Your task to perform on an android device: allow notifications from all sites in the chrome app Image 0: 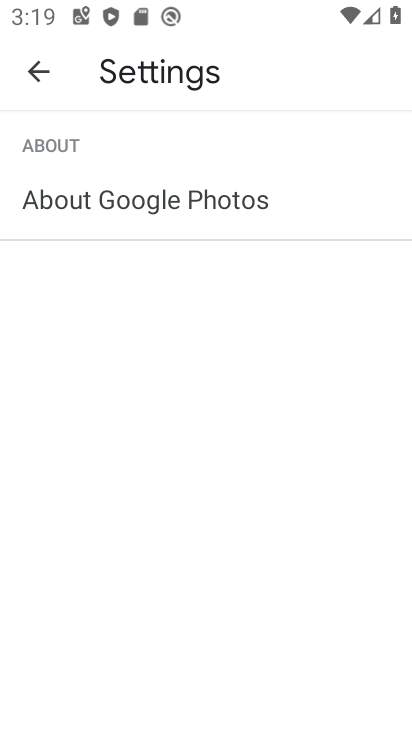
Step 0: drag from (81, 506) to (133, 126)
Your task to perform on an android device: allow notifications from all sites in the chrome app Image 1: 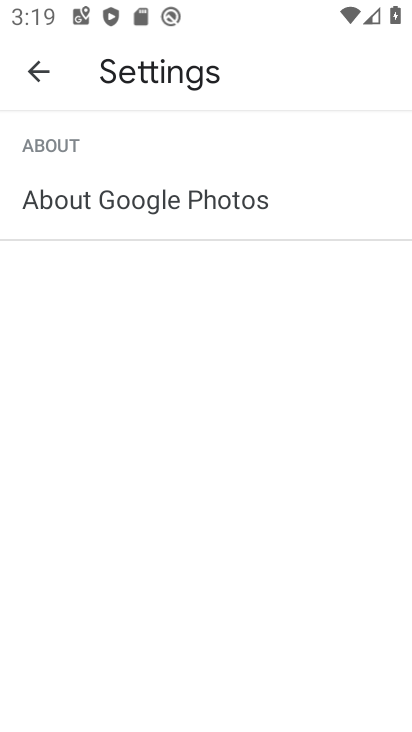
Step 1: drag from (206, 237) to (201, 191)
Your task to perform on an android device: allow notifications from all sites in the chrome app Image 2: 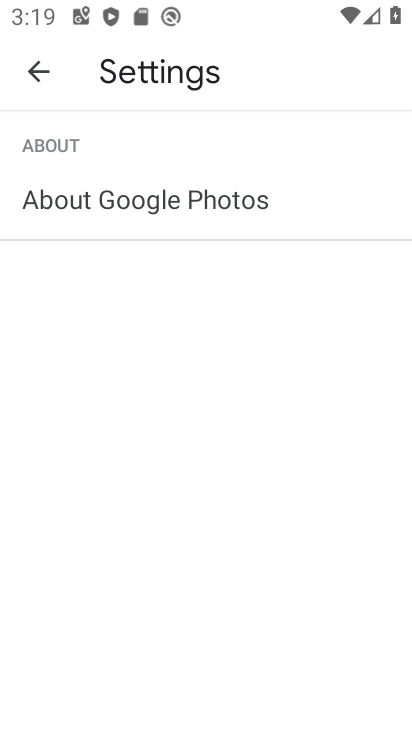
Step 2: drag from (138, 451) to (174, 205)
Your task to perform on an android device: allow notifications from all sites in the chrome app Image 3: 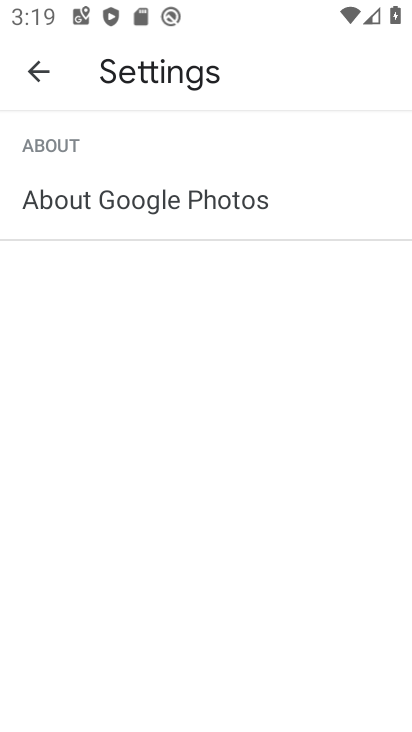
Step 3: drag from (200, 486) to (219, 255)
Your task to perform on an android device: allow notifications from all sites in the chrome app Image 4: 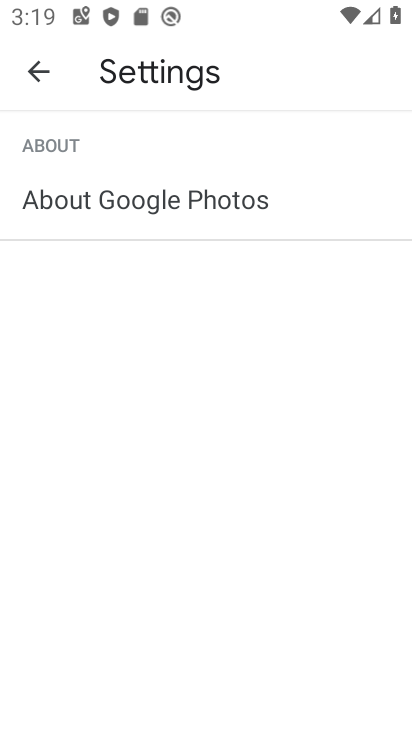
Step 4: click (252, 558)
Your task to perform on an android device: allow notifications from all sites in the chrome app Image 5: 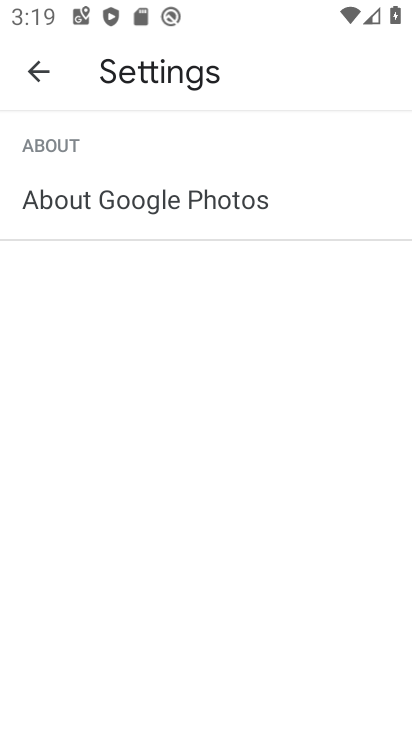
Step 5: click (28, 70)
Your task to perform on an android device: allow notifications from all sites in the chrome app Image 6: 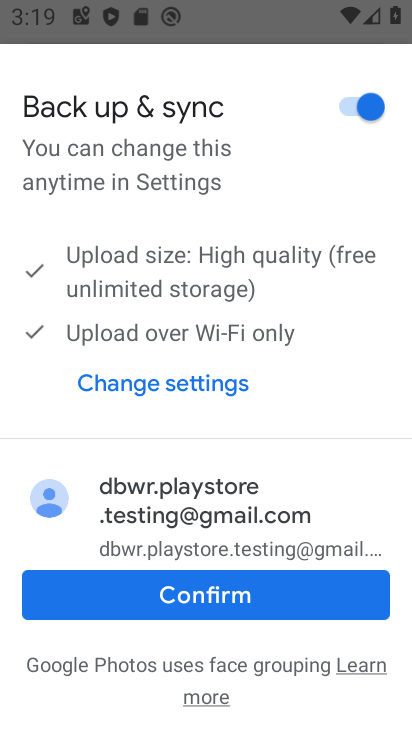
Step 6: click (184, 604)
Your task to perform on an android device: allow notifications from all sites in the chrome app Image 7: 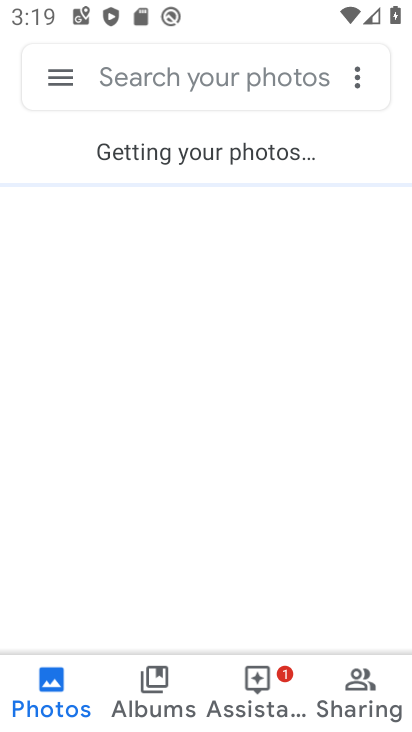
Step 7: press home button
Your task to perform on an android device: allow notifications from all sites in the chrome app Image 8: 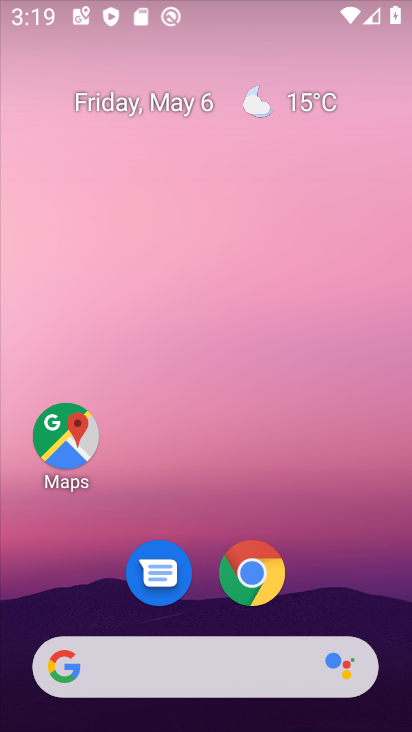
Step 8: drag from (156, 651) to (210, 223)
Your task to perform on an android device: allow notifications from all sites in the chrome app Image 9: 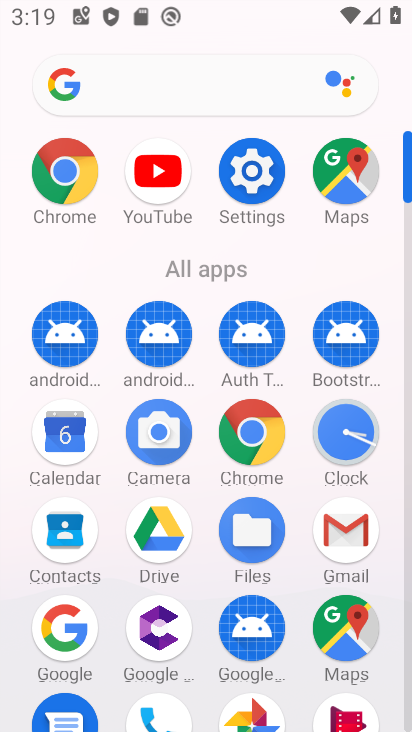
Step 9: click (252, 430)
Your task to perform on an android device: allow notifications from all sites in the chrome app Image 10: 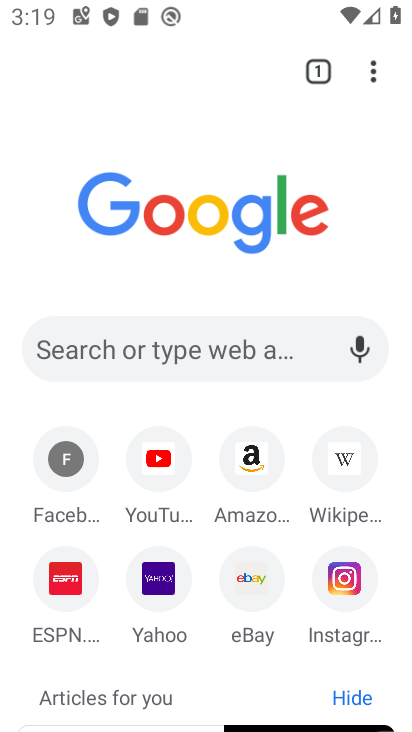
Step 10: drag from (202, 640) to (231, 245)
Your task to perform on an android device: allow notifications from all sites in the chrome app Image 11: 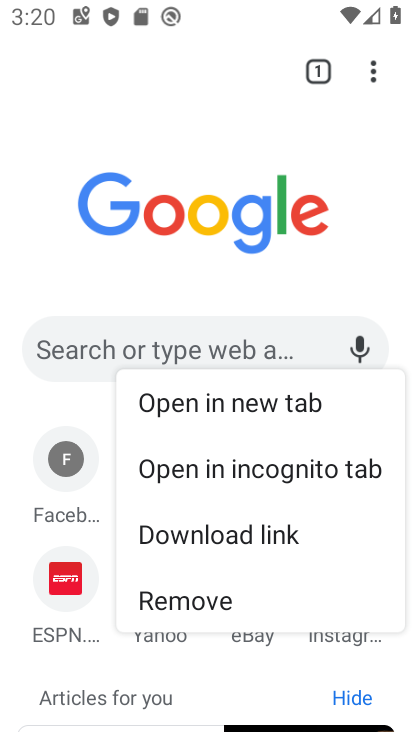
Step 11: click (211, 191)
Your task to perform on an android device: allow notifications from all sites in the chrome app Image 12: 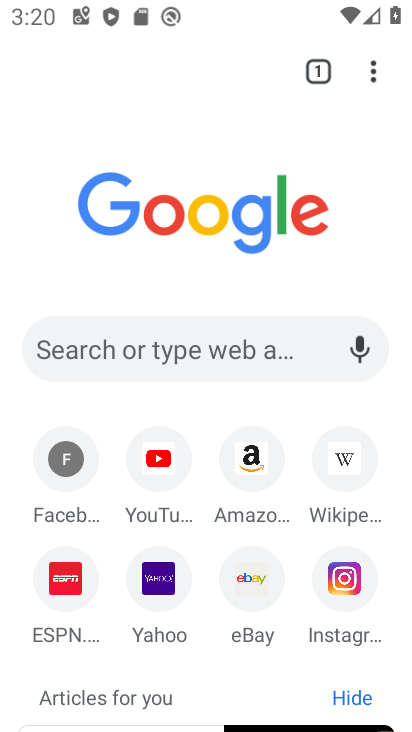
Step 12: drag from (198, 290) to (214, 82)
Your task to perform on an android device: allow notifications from all sites in the chrome app Image 13: 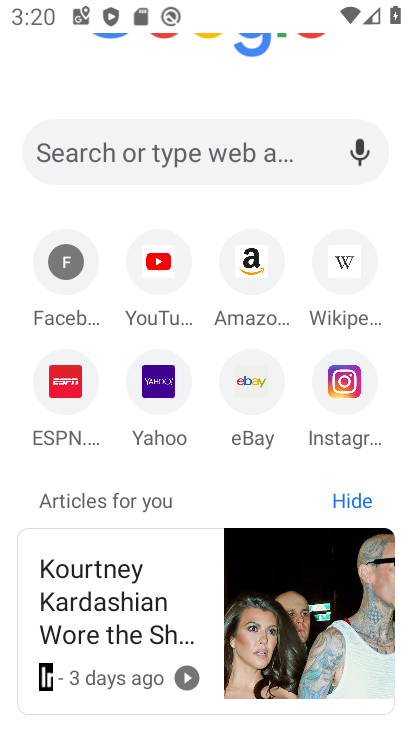
Step 13: drag from (188, 473) to (210, 228)
Your task to perform on an android device: allow notifications from all sites in the chrome app Image 14: 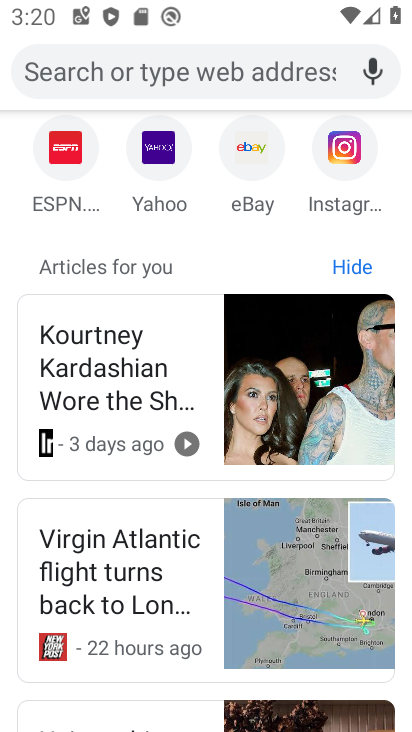
Step 14: drag from (189, 658) to (193, 373)
Your task to perform on an android device: allow notifications from all sites in the chrome app Image 15: 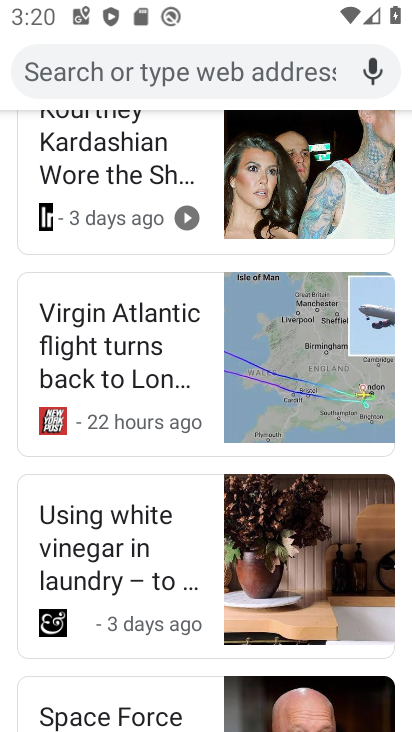
Step 15: drag from (181, 651) to (182, 384)
Your task to perform on an android device: allow notifications from all sites in the chrome app Image 16: 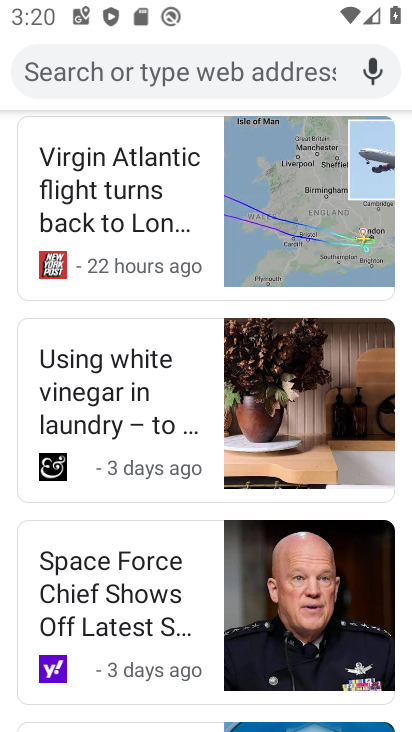
Step 16: drag from (205, 680) to (208, 405)
Your task to perform on an android device: allow notifications from all sites in the chrome app Image 17: 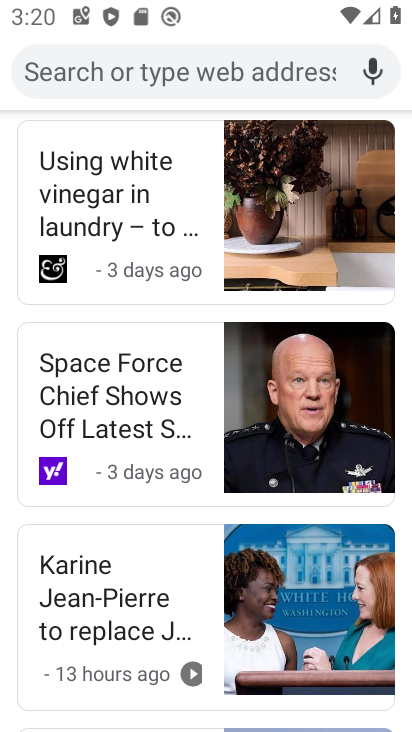
Step 17: drag from (201, 661) to (211, 424)
Your task to perform on an android device: allow notifications from all sites in the chrome app Image 18: 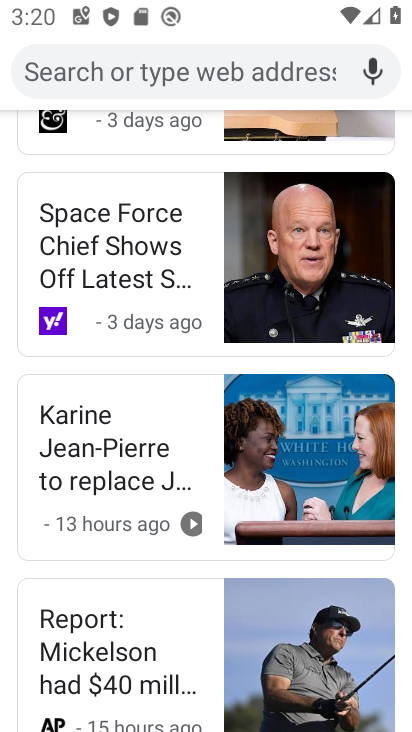
Step 18: drag from (181, 698) to (221, 430)
Your task to perform on an android device: allow notifications from all sites in the chrome app Image 19: 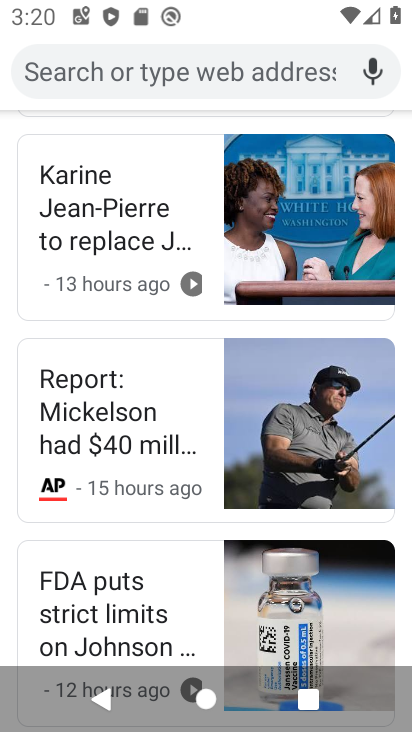
Step 19: drag from (222, 368) to (254, 728)
Your task to perform on an android device: allow notifications from all sites in the chrome app Image 20: 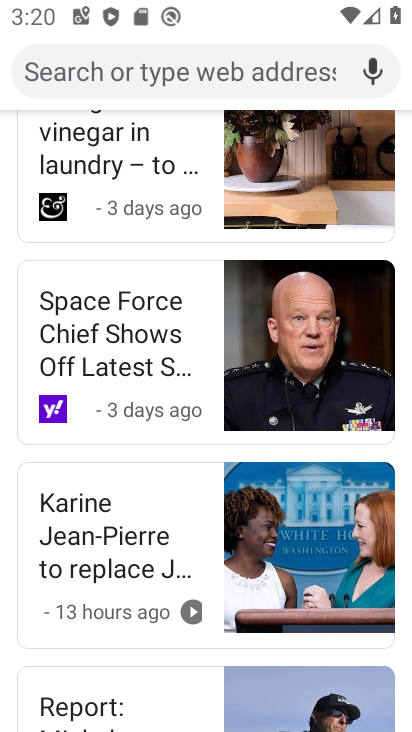
Step 20: drag from (208, 165) to (250, 727)
Your task to perform on an android device: allow notifications from all sites in the chrome app Image 21: 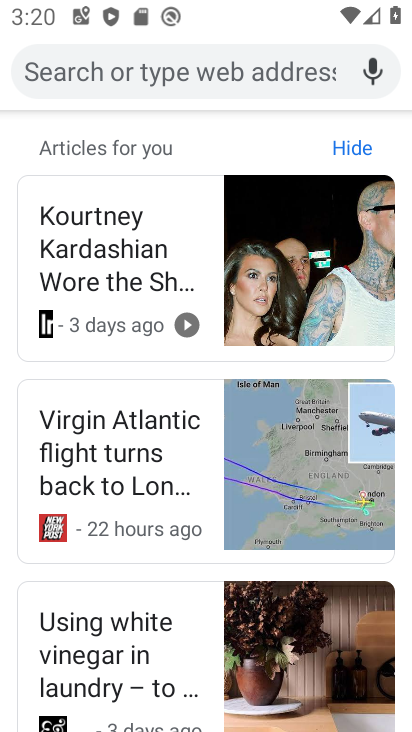
Step 21: drag from (203, 447) to (263, 720)
Your task to perform on an android device: allow notifications from all sites in the chrome app Image 22: 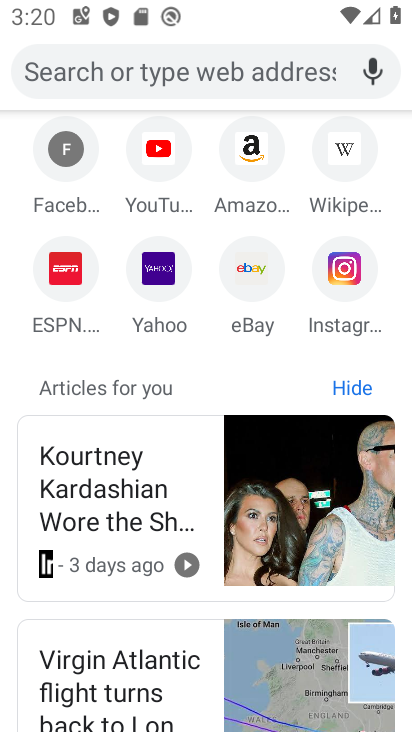
Step 22: drag from (209, 214) to (229, 615)
Your task to perform on an android device: allow notifications from all sites in the chrome app Image 23: 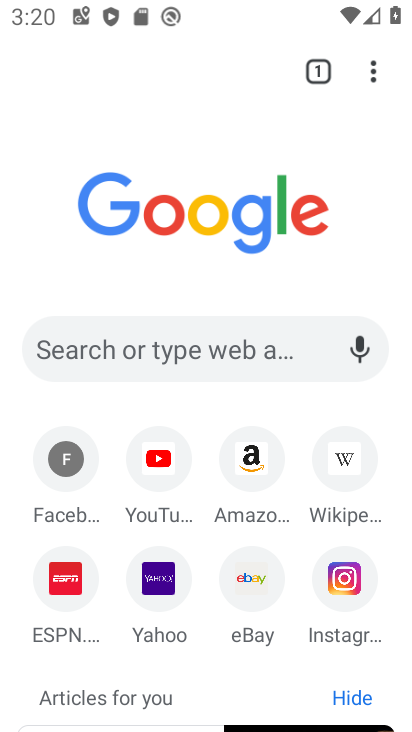
Step 23: click (372, 69)
Your task to perform on an android device: allow notifications from all sites in the chrome app Image 24: 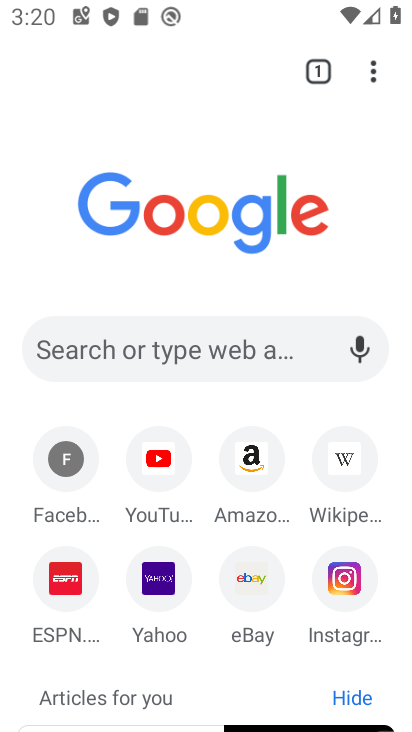
Step 24: click (372, 69)
Your task to perform on an android device: allow notifications from all sites in the chrome app Image 25: 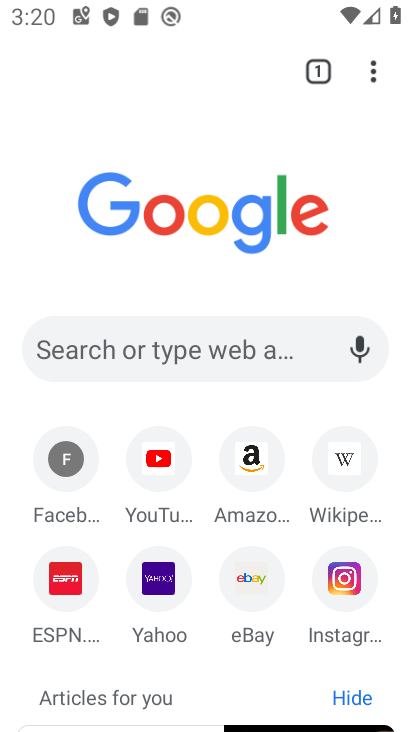
Step 25: drag from (379, 69) to (172, 608)
Your task to perform on an android device: allow notifications from all sites in the chrome app Image 26: 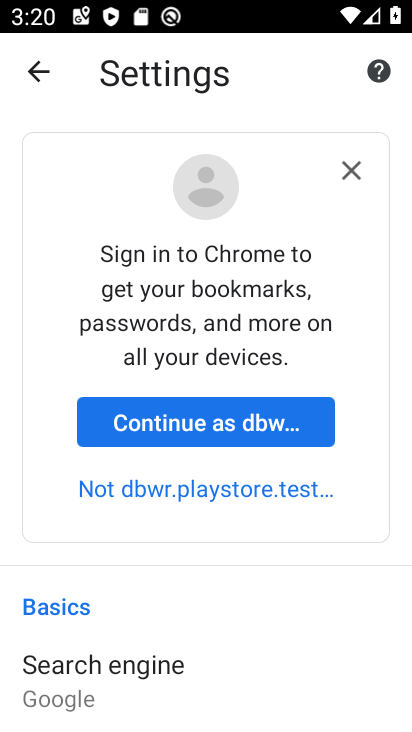
Step 26: drag from (184, 630) to (227, 85)
Your task to perform on an android device: allow notifications from all sites in the chrome app Image 27: 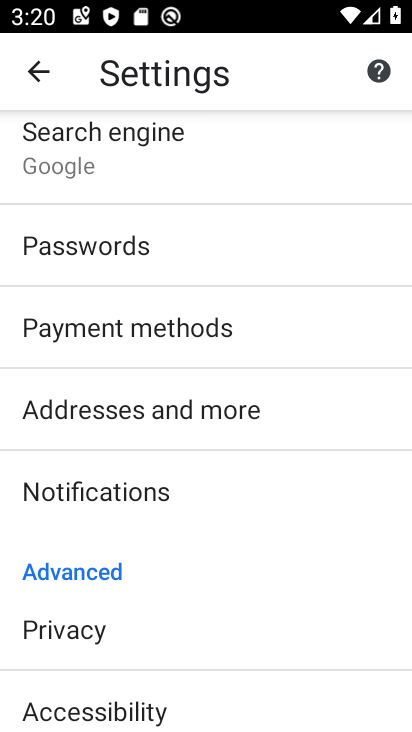
Step 27: drag from (162, 584) to (207, 255)
Your task to perform on an android device: allow notifications from all sites in the chrome app Image 28: 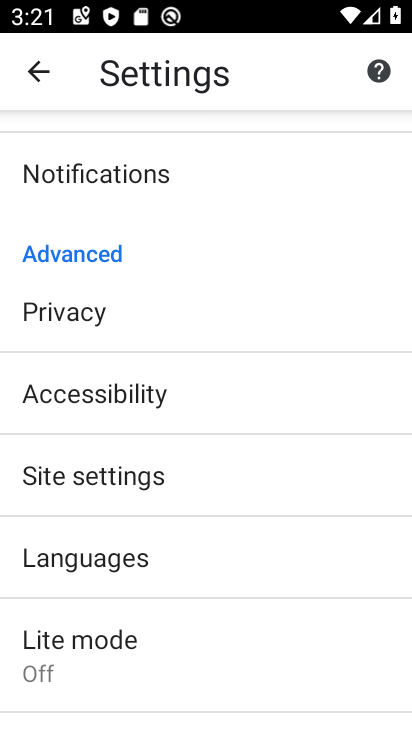
Step 28: click (147, 476)
Your task to perform on an android device: allow notifications from all sites in the chrome app Image 29: 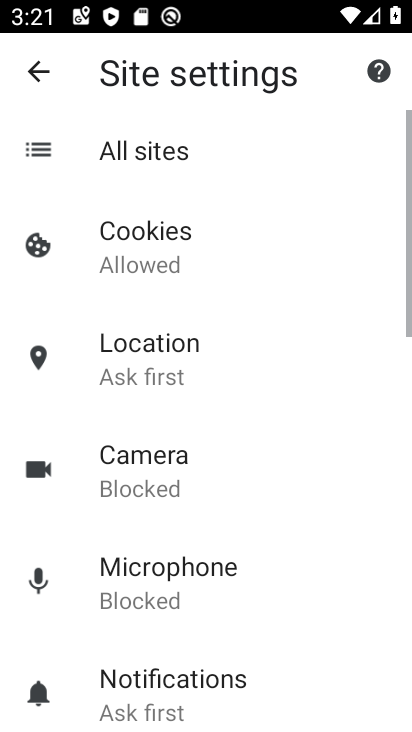
Step 29: drag from (159, 639) to (184, 344)
Your task to perform on an android device: allow notifications from all sites in the chrome app Image 30: 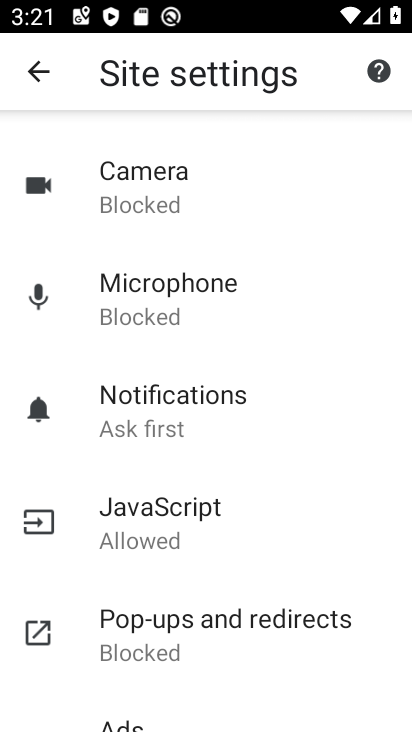
Step 30: drag from (181, 185) to (317, 729)
Your task to perform on an android device: allow notifications from all sites in the chrome app Image 31: 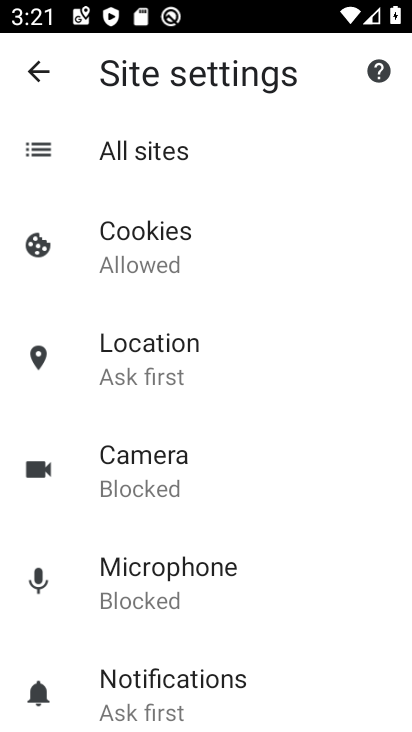
Step 31: click (203, 153)
Your task to perform on an android device: allow notifications from all sites in the chrome app Image 32: 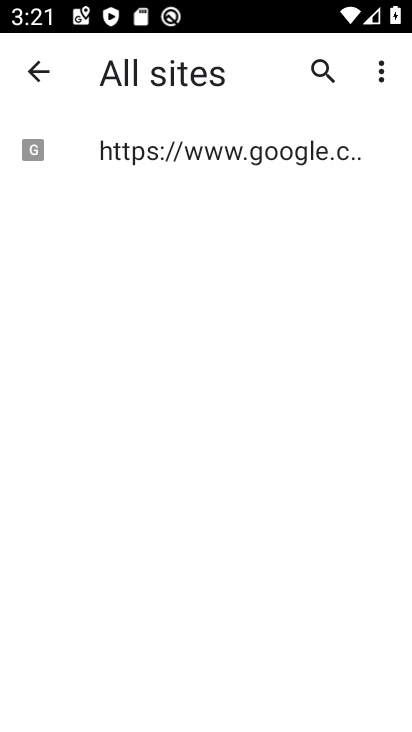
Step 32: drag from (250, 235) to (210, 664)
Your task to perform on an android device: allow notifications from all sites in the chrome app Image 33: 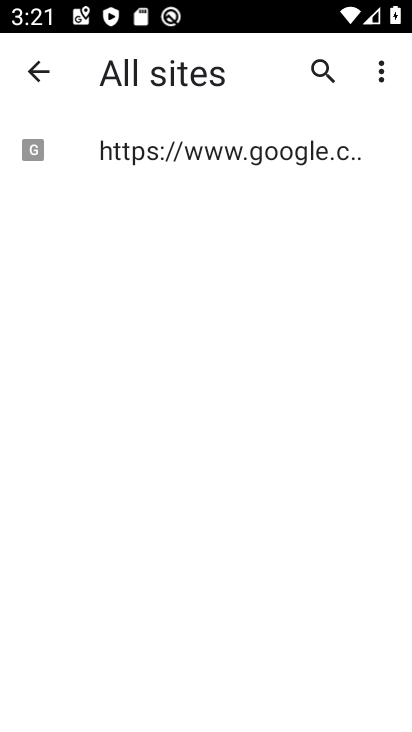
Step 33: drag from (180, 321) to (262, 622)
Your task to perform on an android device: allow notifications from all sites in the chrome app Image 34: 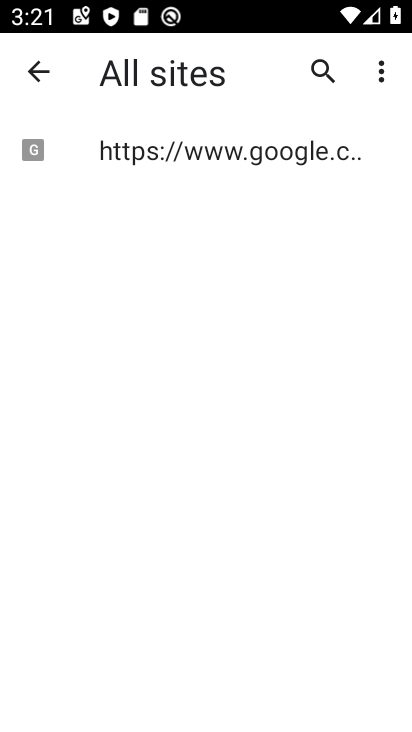
Step 34: drag from (212, 302) to (280, 589)
Your task to perform on an android device: allow notifications from all sites in the chrome app Image 35: 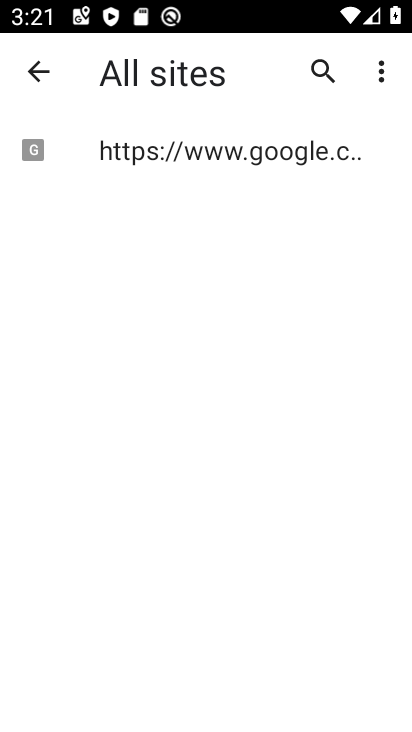
Step 35: click (267, 625)
Your task to perform on an android device: allow notifications from all sites in the chrome app Image 36: 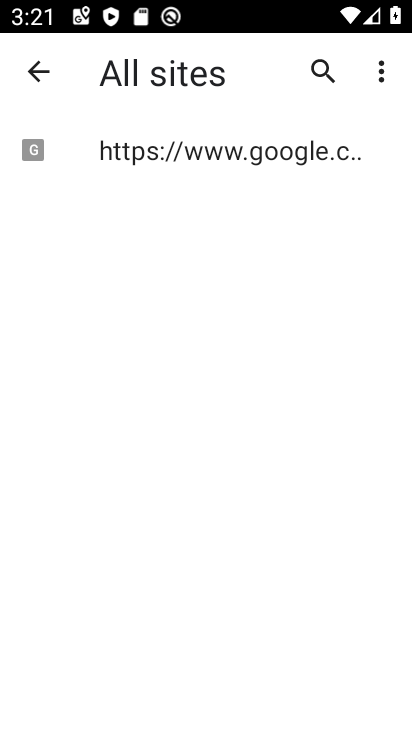
Step 36: click (263, 620)
Your task to perform on an android device: allow notifications from all sites in the chrome app Image 37: 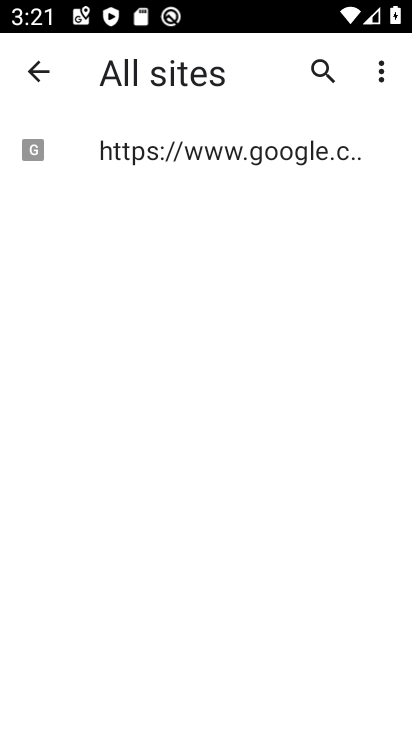
Step 37: task complete